Your task to perform on an android device: See recent photos Image 0: 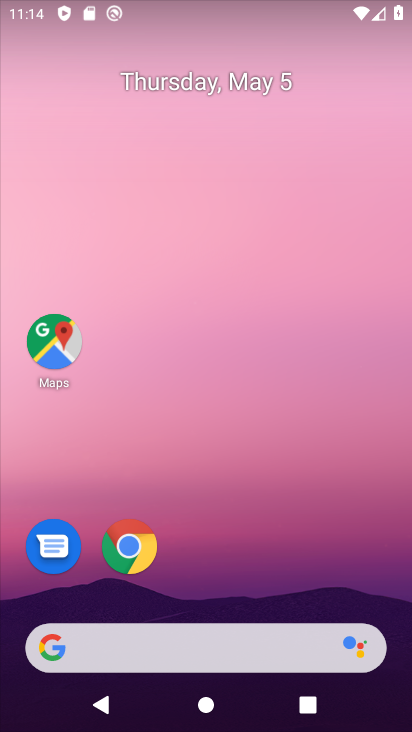
Step 0: drag from (225, 616) to (208, 99)
Your task to perform on an android device: See recent photos Image 1: 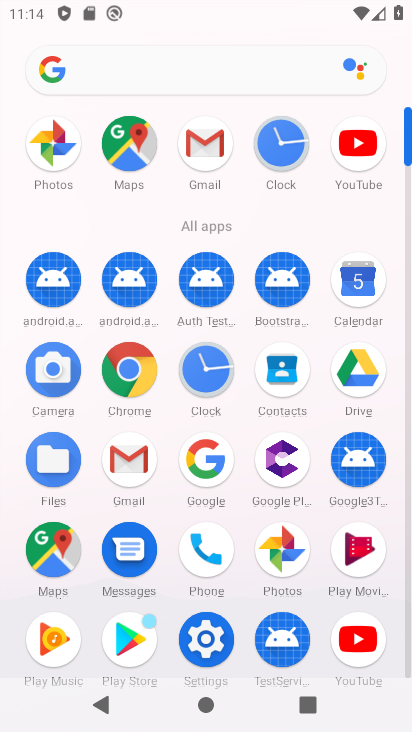
Step 1: click (285, 559)
Your task to perform on an android device: See recent photos Image 2: 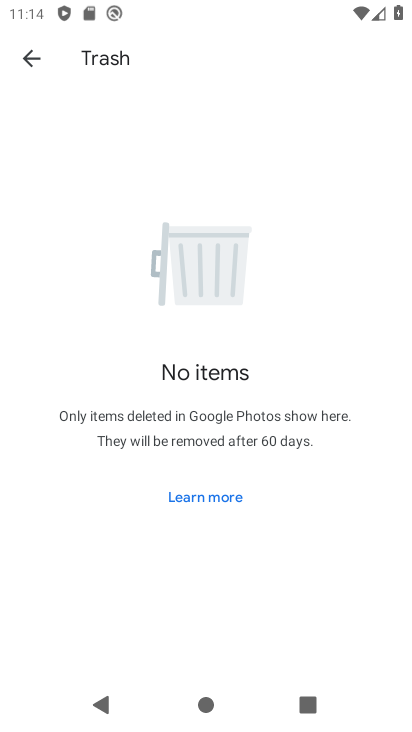
Step 2: click (30, 57)
Your task to perform on an android device: See recent photos Image 3: 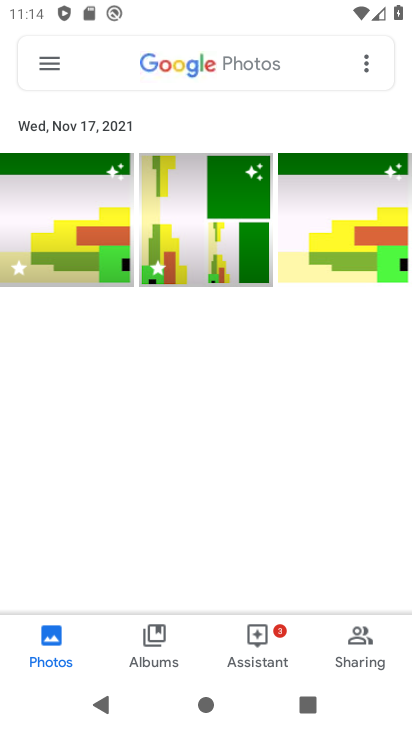
Step 3: task complete